Your task to perform on an android device: Is it going to rain tomorrow? Image 0: 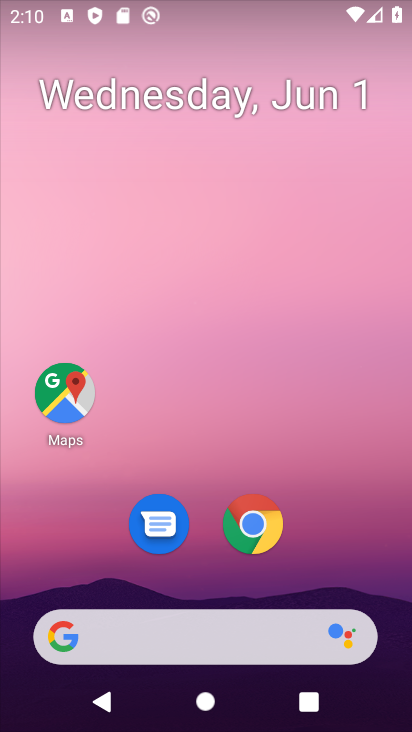
Step 0: click (242, 631)
Your task to perform on an android device: Is it going to rain tomorrow? Image 1: 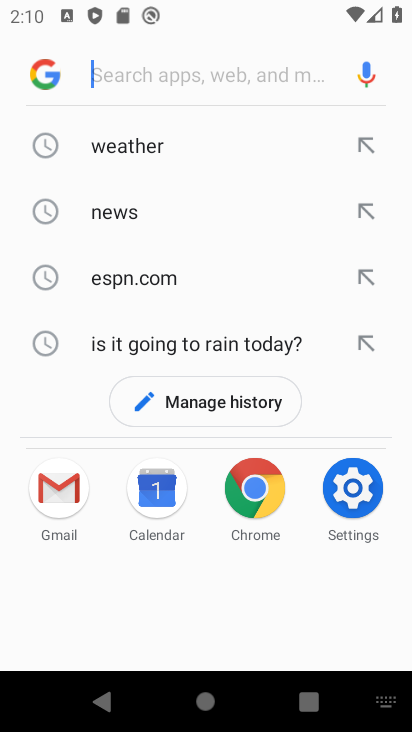
Step 1: click (134, 135)
Your task to perform on an android device: Is it going to rain tomorrow? Image 2: 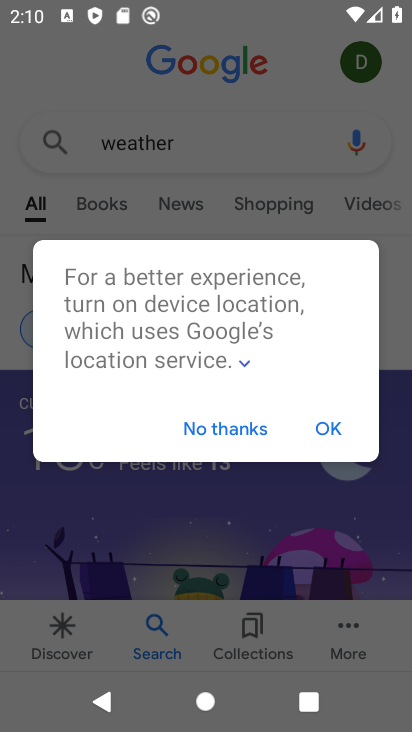
Step 2: click (326, 422)
Your task to perform on an android device: Is it going to rain tomorrow? Image 3: 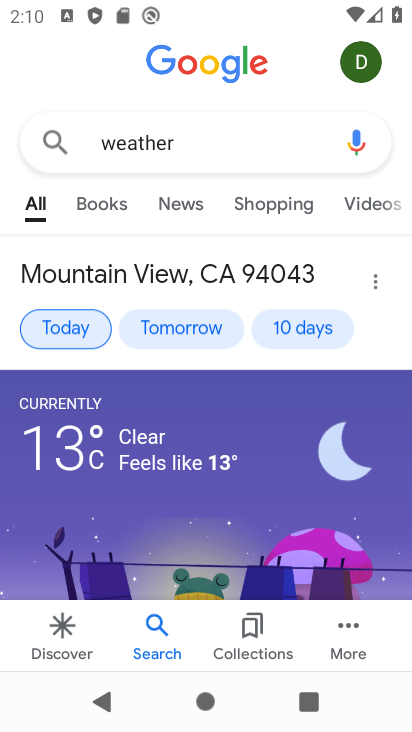
Step 3: click (85, 315)
Your task to perform on an android device: Is it going to rain tomorrow? Image 4: 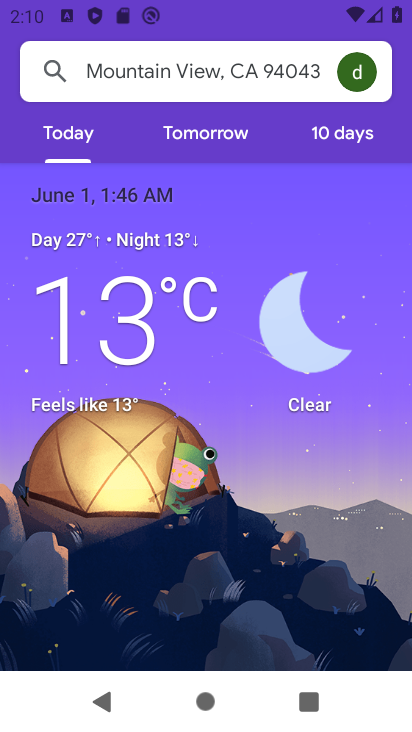
Step 4: click (203, 138)
Your task to perform on an android device: Is it going to rain tomorrow? Image 5: 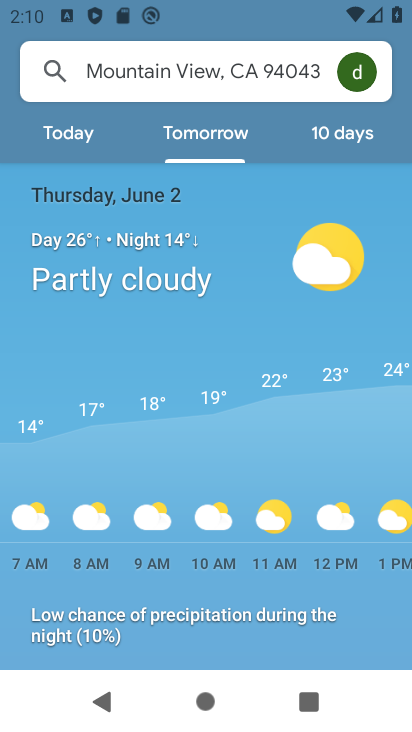
Step 5: task complete